Your task to perform on an android device: read, delete, or share a saved page in the chrome app Image 0: 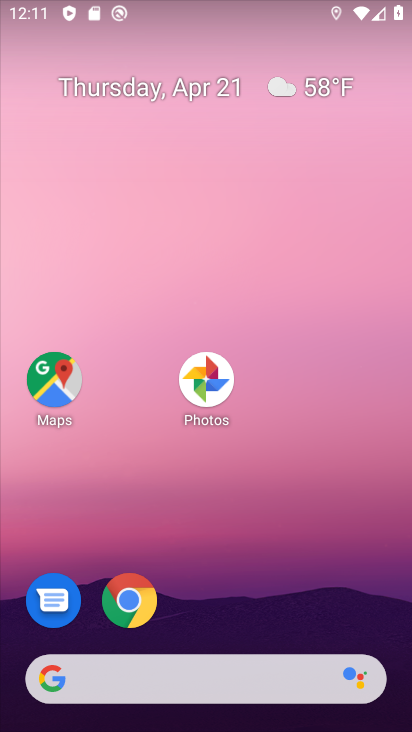
Step 0: drag from (222, 644) to (113, 97)
Your task to perform on an android device: read, delete, or share a saved page in the chrome app Image 1: 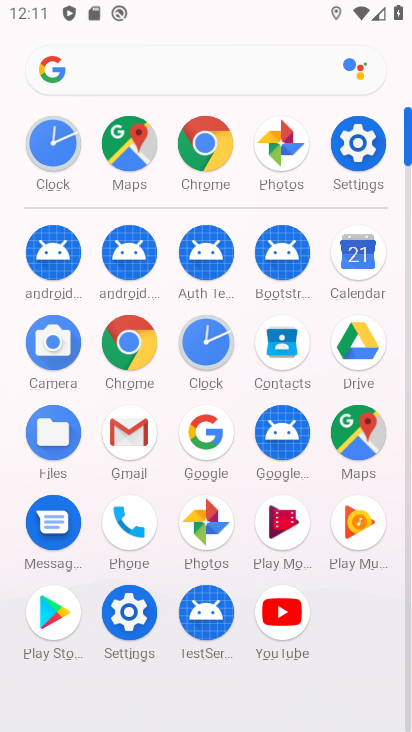
Step 1: click (131, 355)
Your task to perform on an android device: read, delete, or share a saved page in the chrome app Image 2: 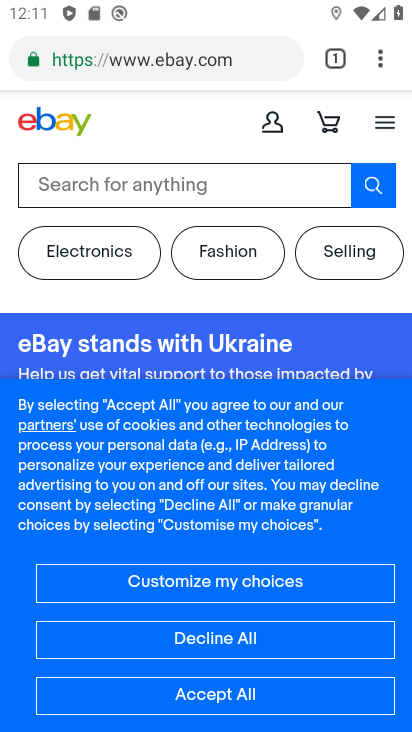
Step 2: click (382, 61)
Your task to perform on an android device: read, delete, or share a saved page in the chrome app Image 3: 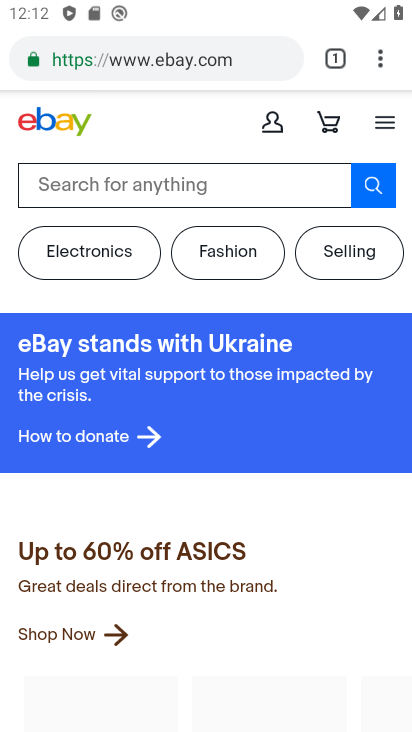
Step 3: task complete